Your task to perform on an android device: When is my next meeting? Image 0: 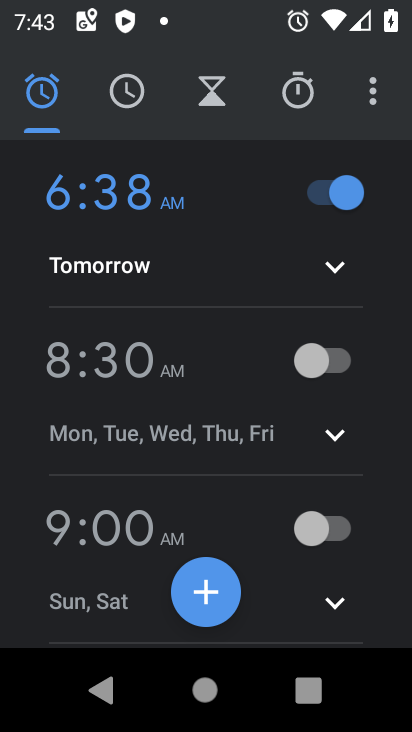
Step 0: press home button
Your task to perform on an android device: When is my next meeting? Image 1: 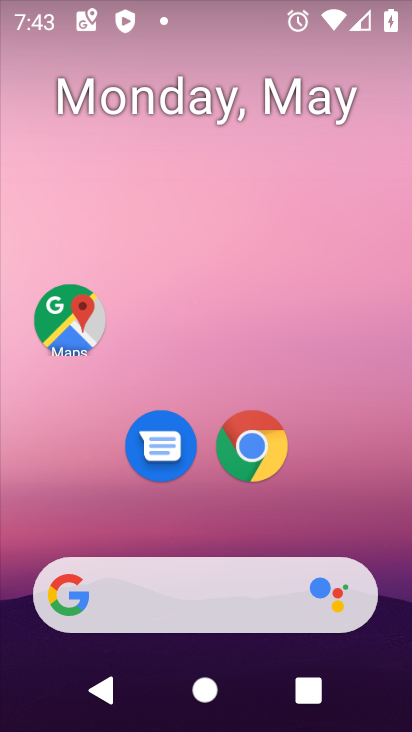
Step 1: drag from (346, 501) to (194, 80)
Your task to perform on an android device: When is my next meeting? Image 2: 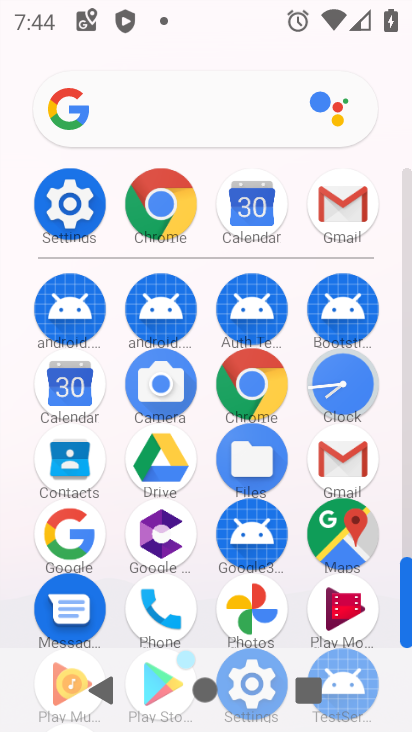
Step 2: click (63, 388)
Your task to perform on an android device: When is my next meeting? Image 3: 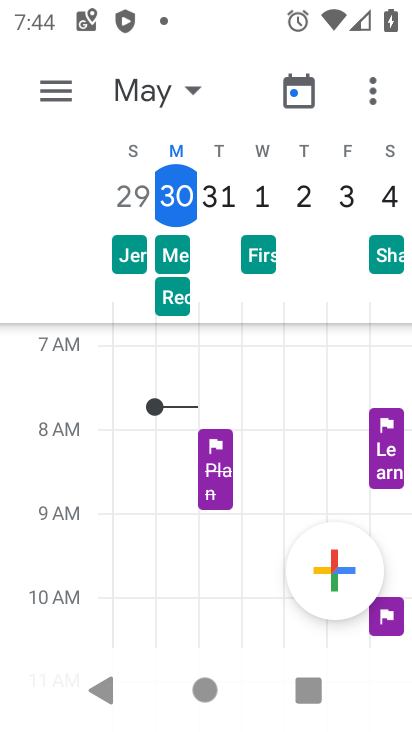
Step 3: task complete